Your task to perform on an android device: Go to settings Image 0: 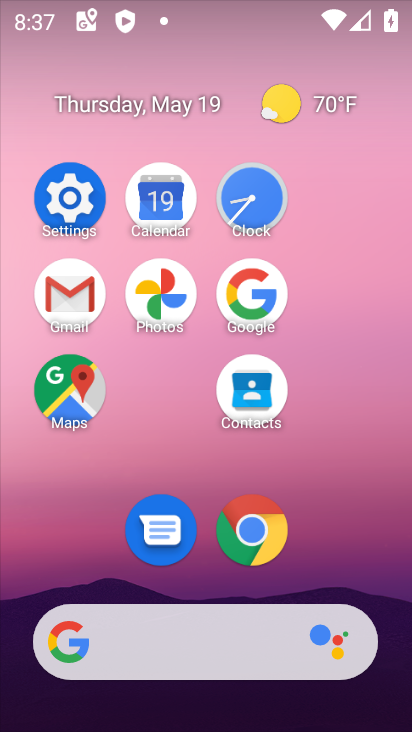
Step 0: click (87, 209)
Your task to perform on an android device: Go to settings Image 1: 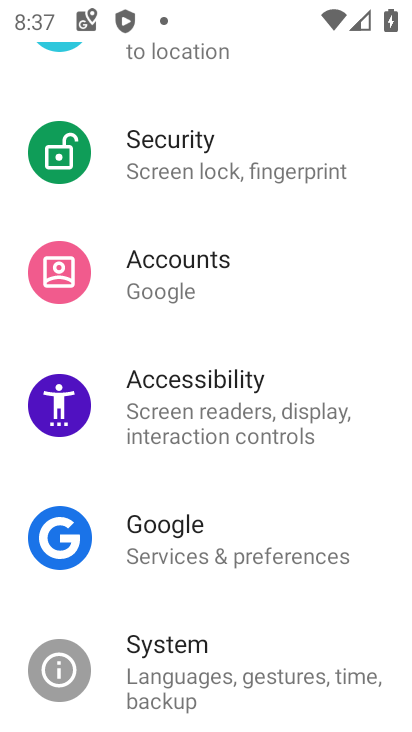
Step 1: task complete